Your task to perform on an android device: move a message to another label in the gmail app Image 0: 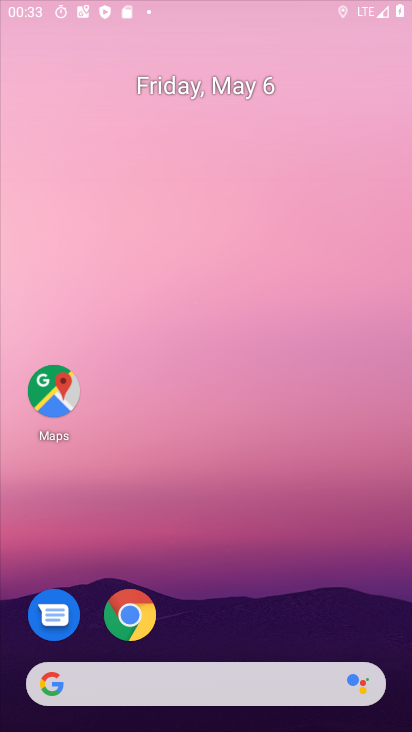
Step 0: drag from (219, 597) to (257, 115)
Your task to perform on an android device: move a message to another label in the gmail app Image 1: 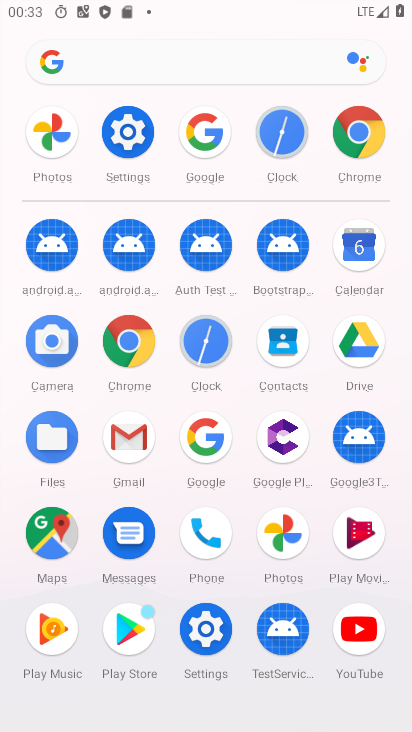
Step 1: click (129, 437)
Your task to perform on an android device: move a message to another label in the gmail app Image 2: 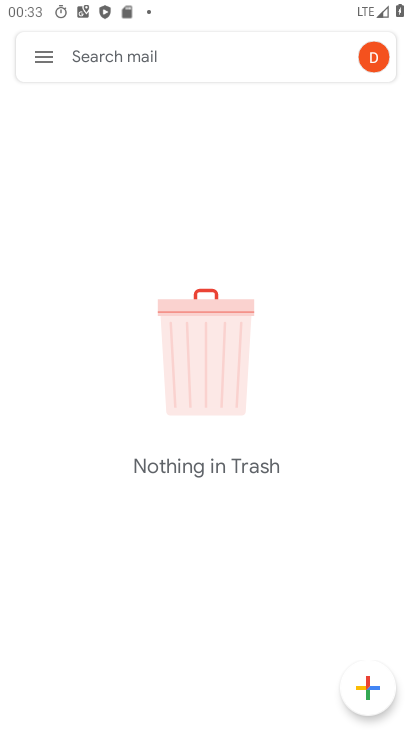
Step 2: click (42, 54)
Your task to perform on an android device: move a message to another label in the gmail app Image 3: 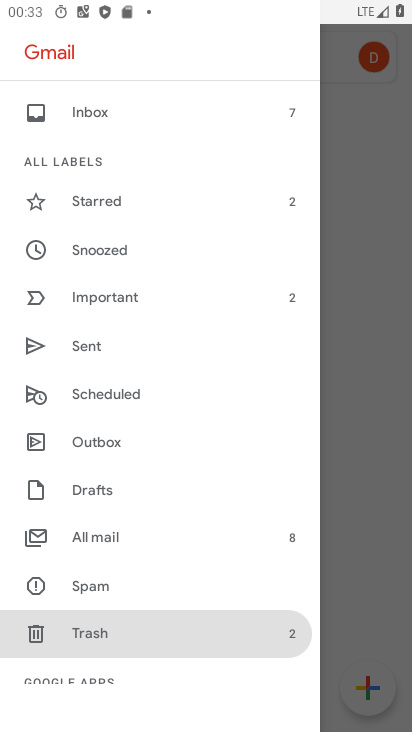
Step 3: drag from (156, 344) to (183, 473)
Your task to perform on an android device: move a message to another label in the gmail app Image 4: 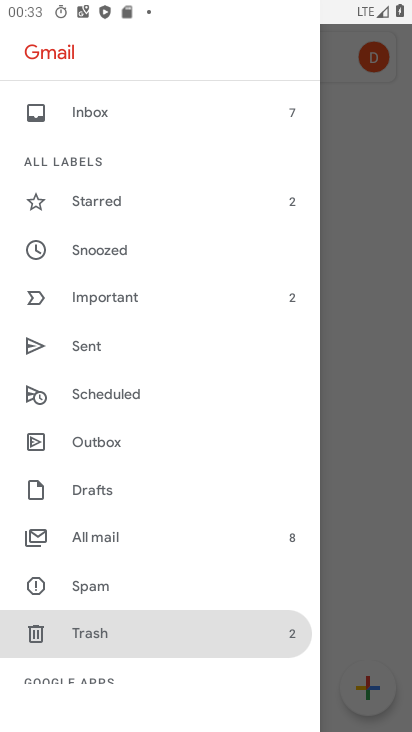
Step 4: click (134, 535)
Your task to perform on an android device: move a message to another label in the gmail app Image 5: 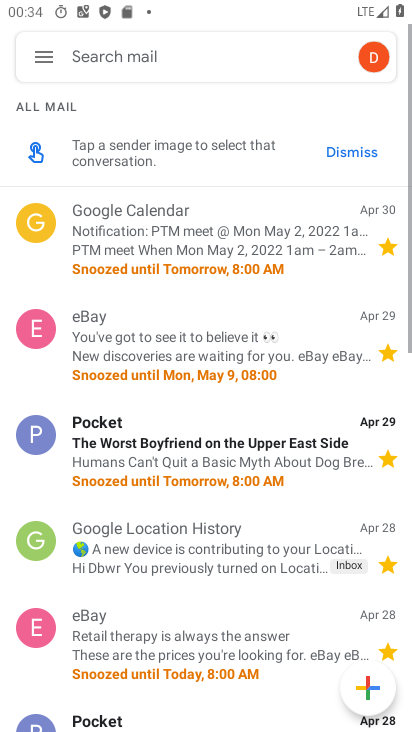
Step 5: click (189, 232)
Your task to perform on an android device: move a message to another label in the gmail app Image 6: 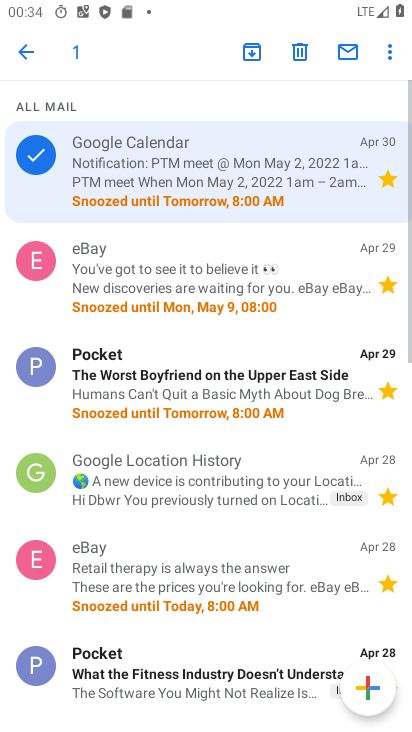
Step 6: click (383, 65)
Your task to perform on an android device: move a message to another label in the gmail app Image 7: 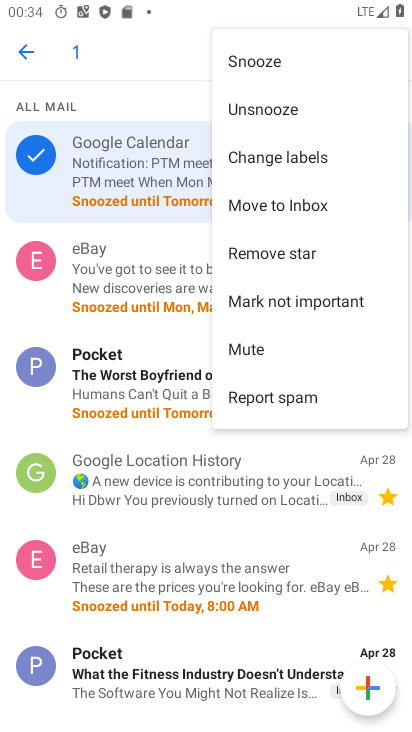
Step 7: click (291, 156)
Your task to perform on an android device: move a message to another label in the gmail app Image 8: 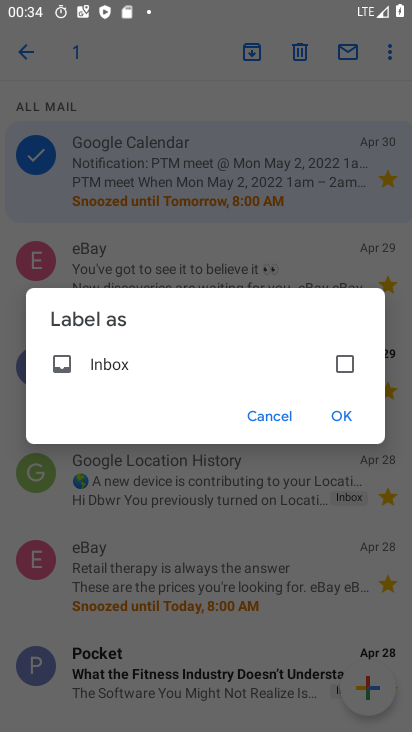
Step 8: click (326, 415)
Your task to perform on an android device: move a message to another label in the gmail app Image 9: 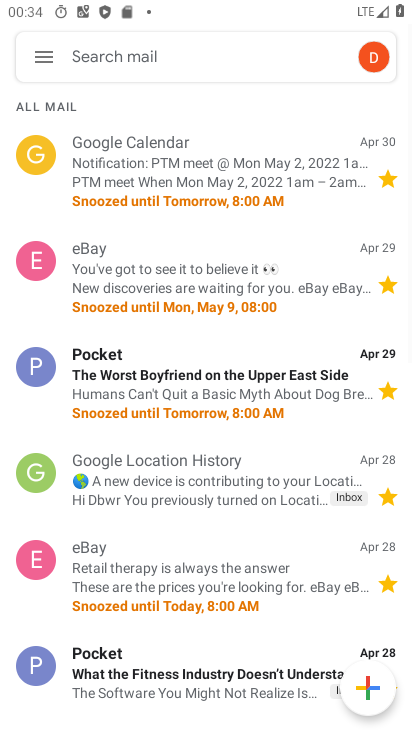
Step 9: task complete